Your task to perform on an android device: View the shopping cart on amazon. Image 0: 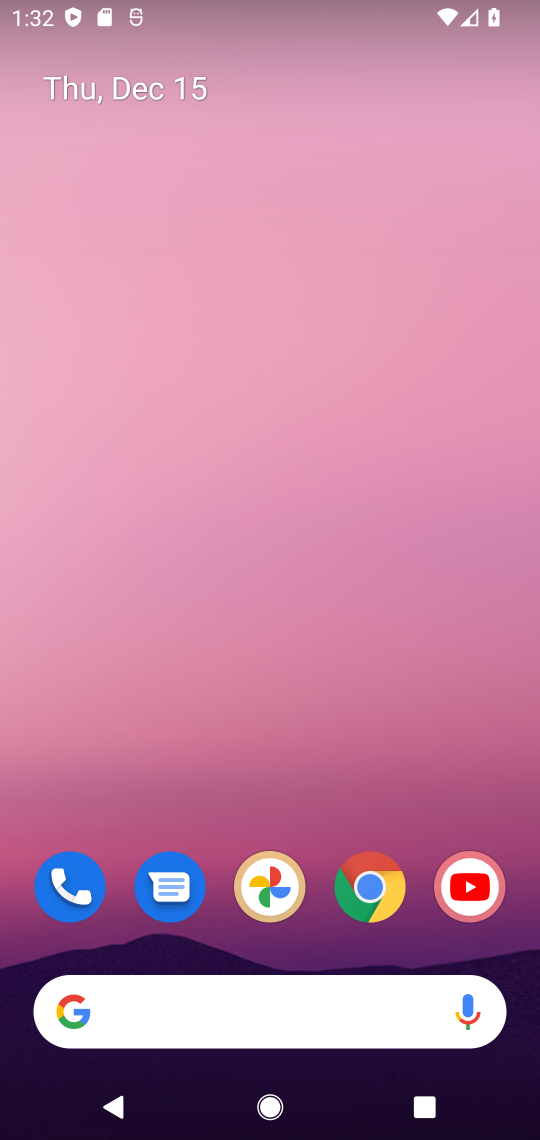
Step 0: click (375, 894)
Your task to perform on an android device: View the shopping cart on amazon. Image 1: 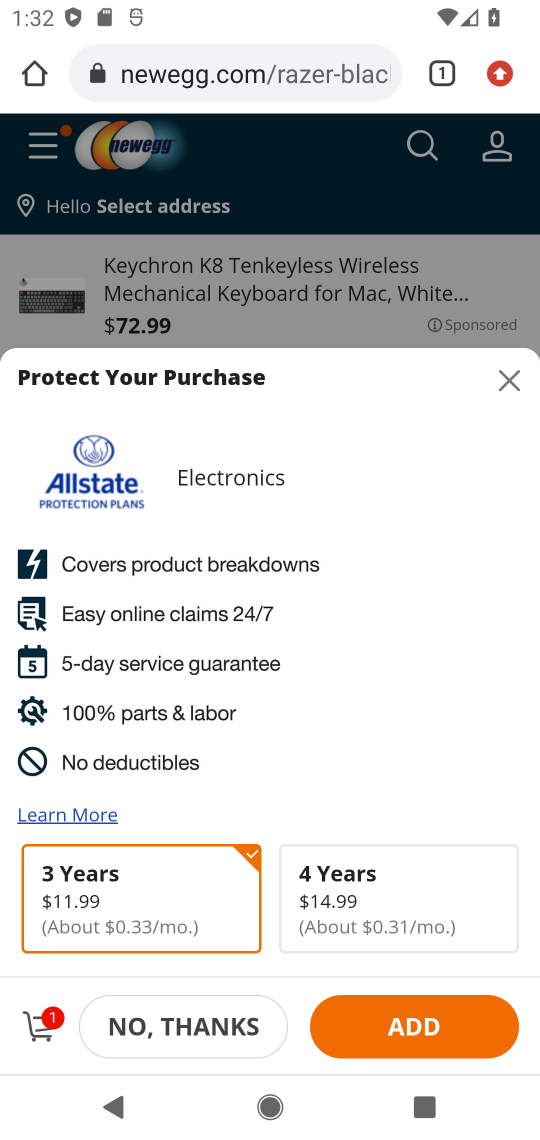
Step 1: click (195, 83)
Your task to perform on an android device: View the shopping cart on amazon. Image 2: 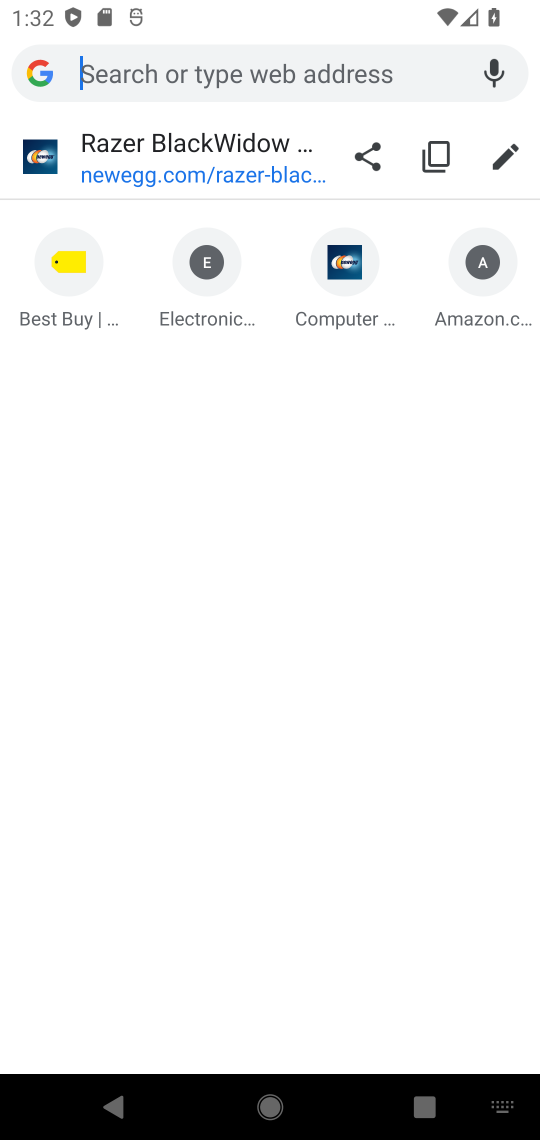
Step 2: click (478, 329)
Your task to perform on an android device: View the shopping cart on amazon. Image 3: 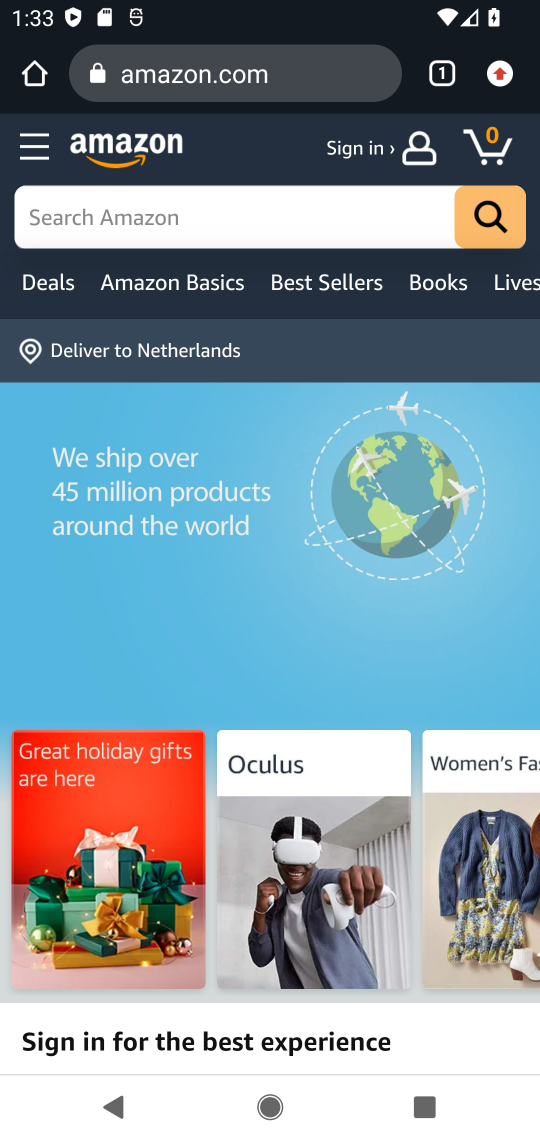
Step 3: click (481, 151)
Your task to perform on an android device: View the shopping cart on amazon. Image 4: 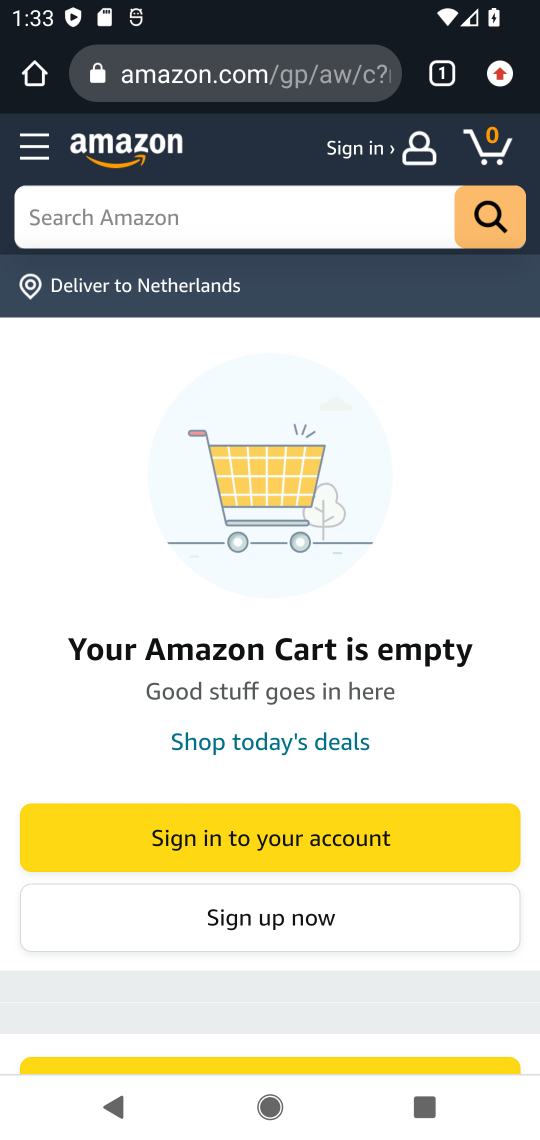
Step 4: task complete